Your task to perform on an android device: install app "Clock" Image 0: 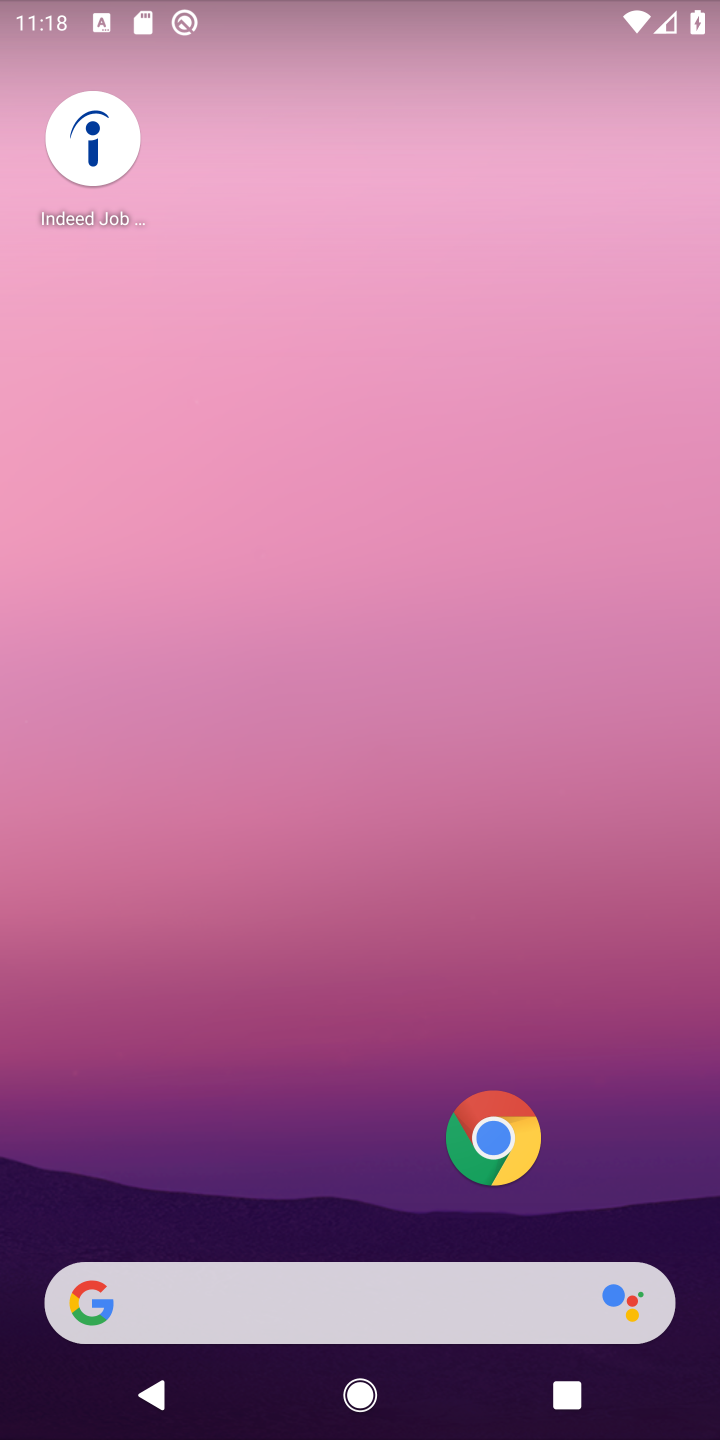
Step 0: drag from (331, 1175) to (427, 371)
Your task to perform on an android device: install app "Clock" Image 1: 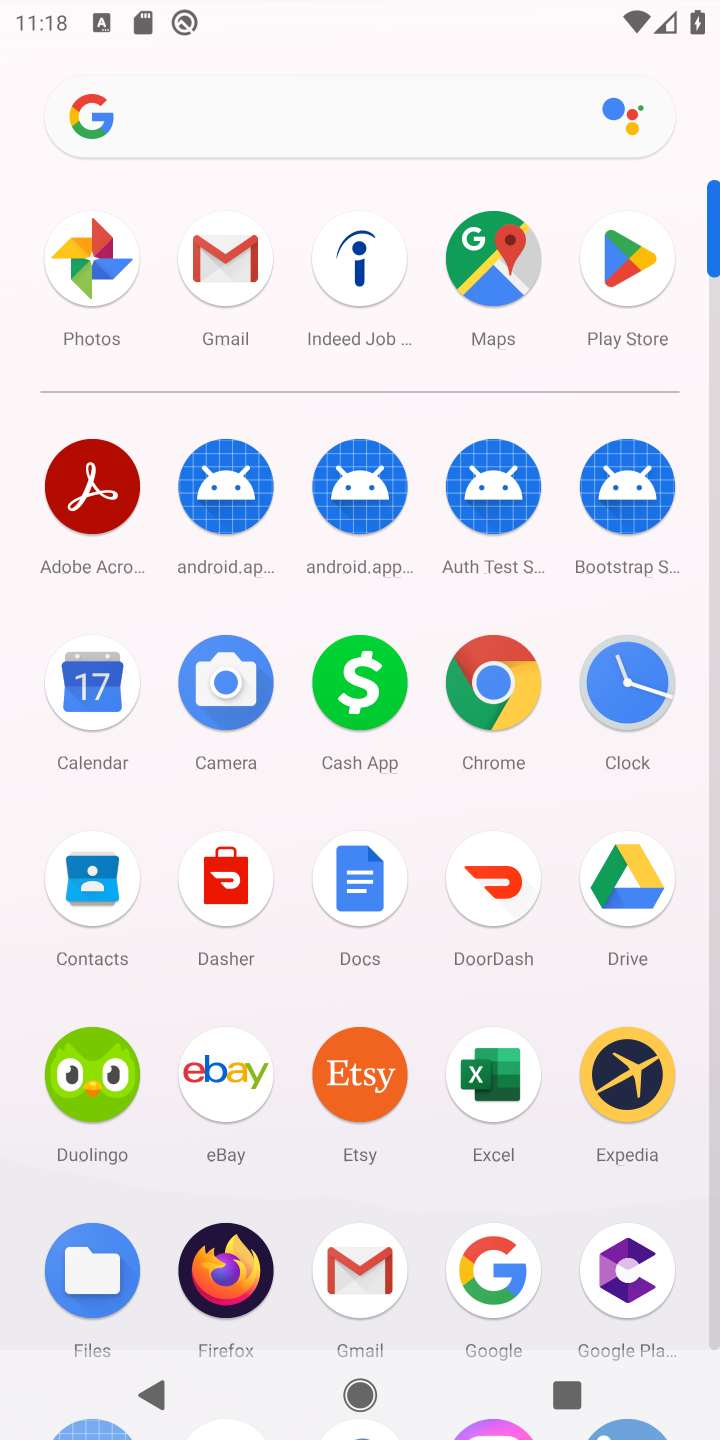
Step 1: click (637, 249)
Your task to perform on an android device: install app "Clock" Image 2: 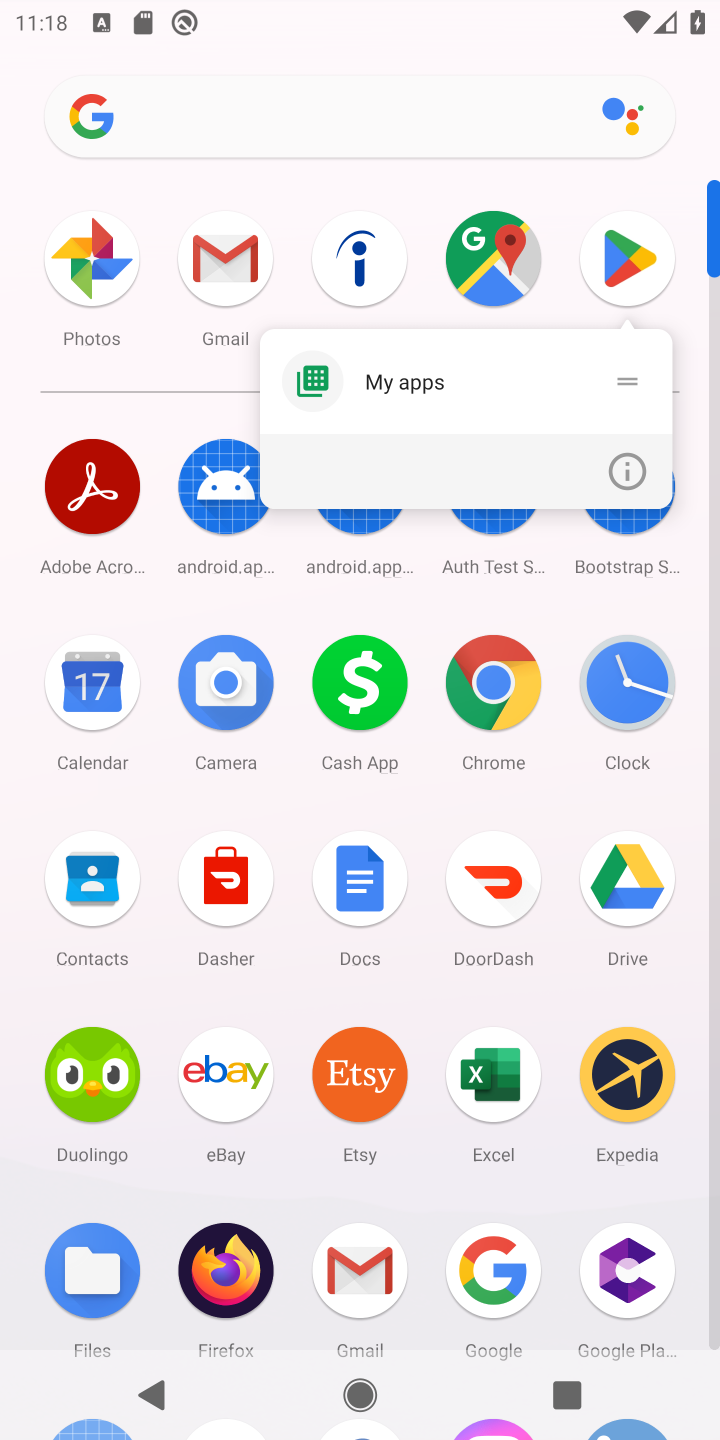
Step 2: click (633, 255)
Your task to perform on an android device: install app "Clock" Image 3: 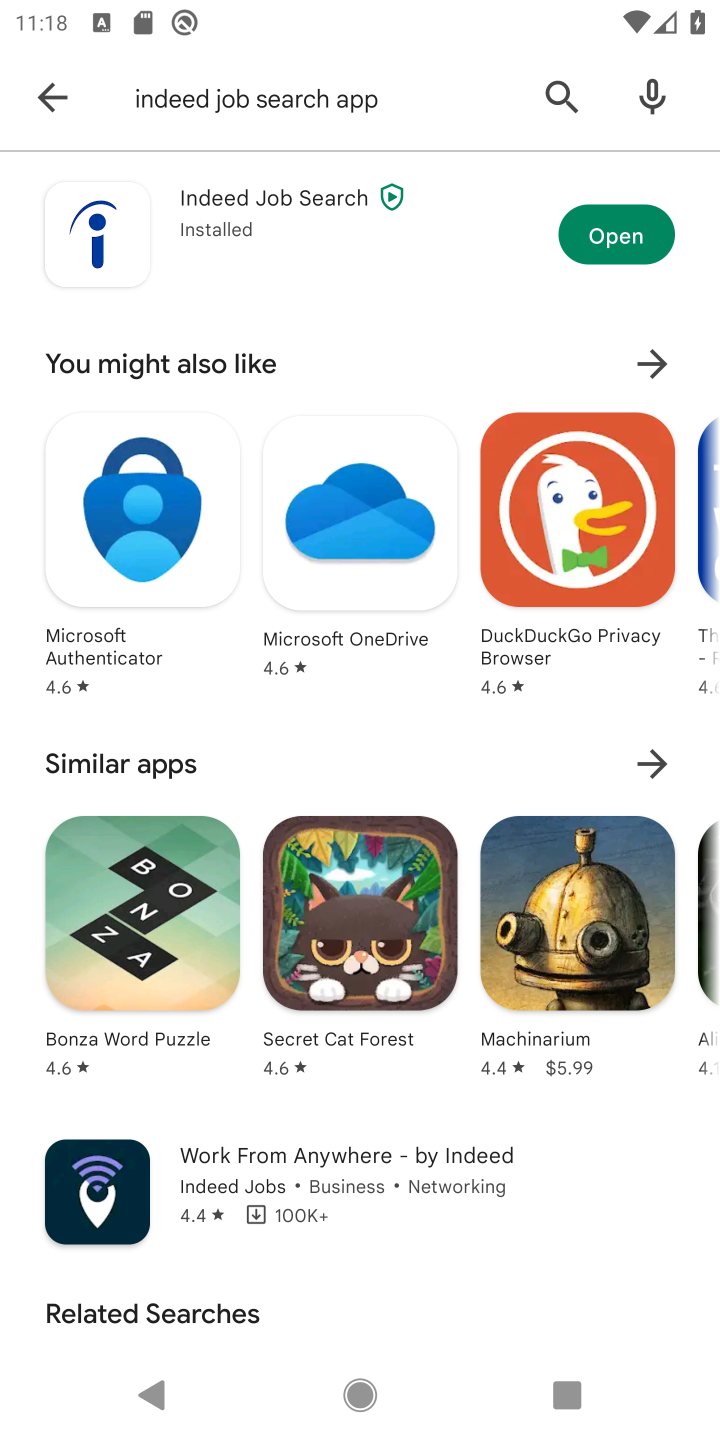
Step 3: click (40, 95)
Your task to perform on an android device: install app "Clock" Image 4: 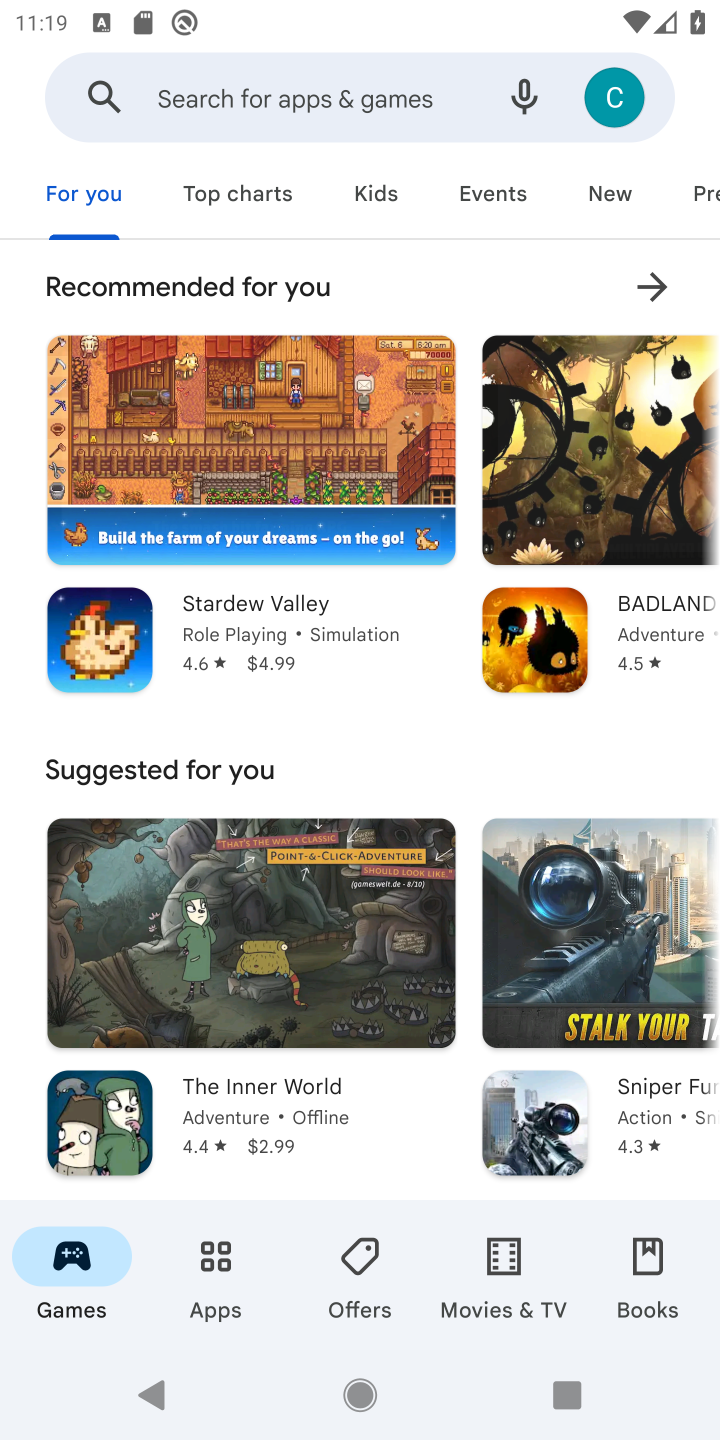
Step 4: click (322, 75)
Your task to perform on an android device: install app "Clock" Image 5: 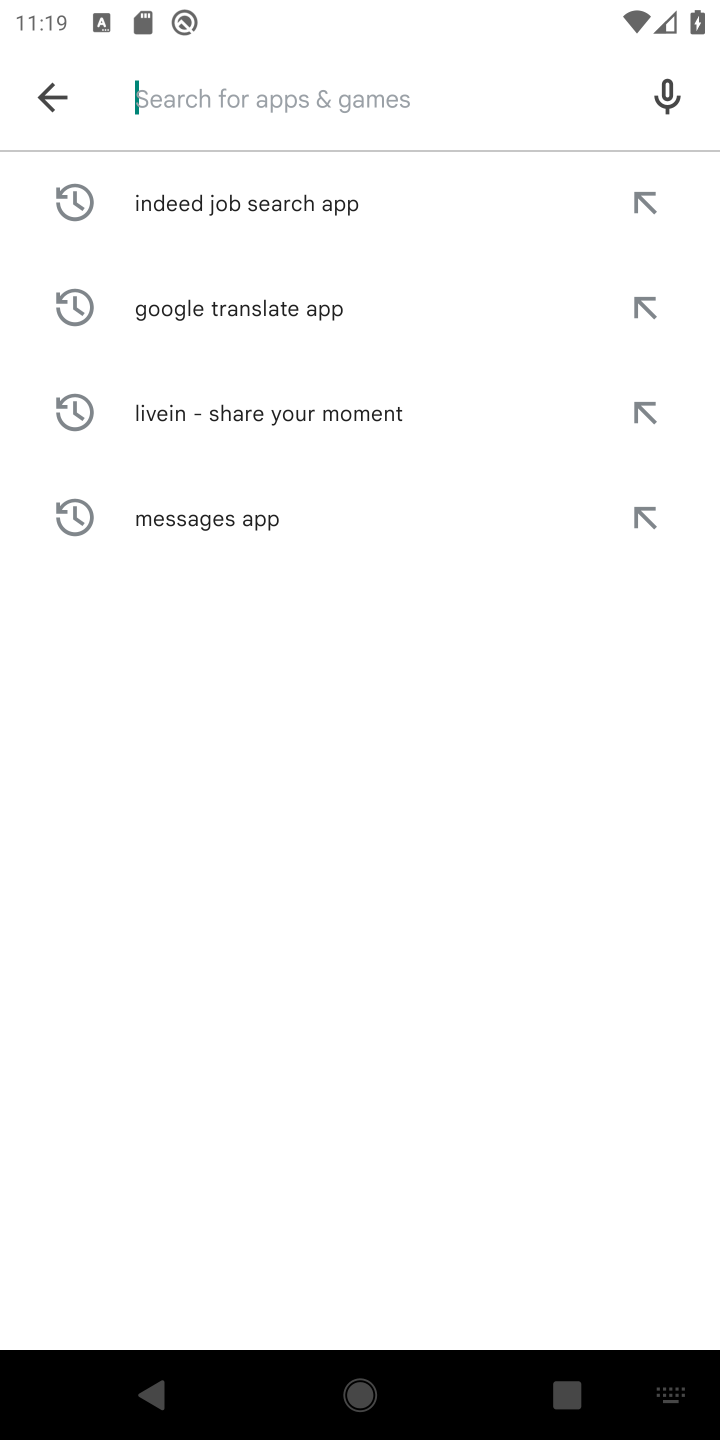
Step 5: type "Clock "
Your task to perform on an android device: install app "Clock" Image 6: 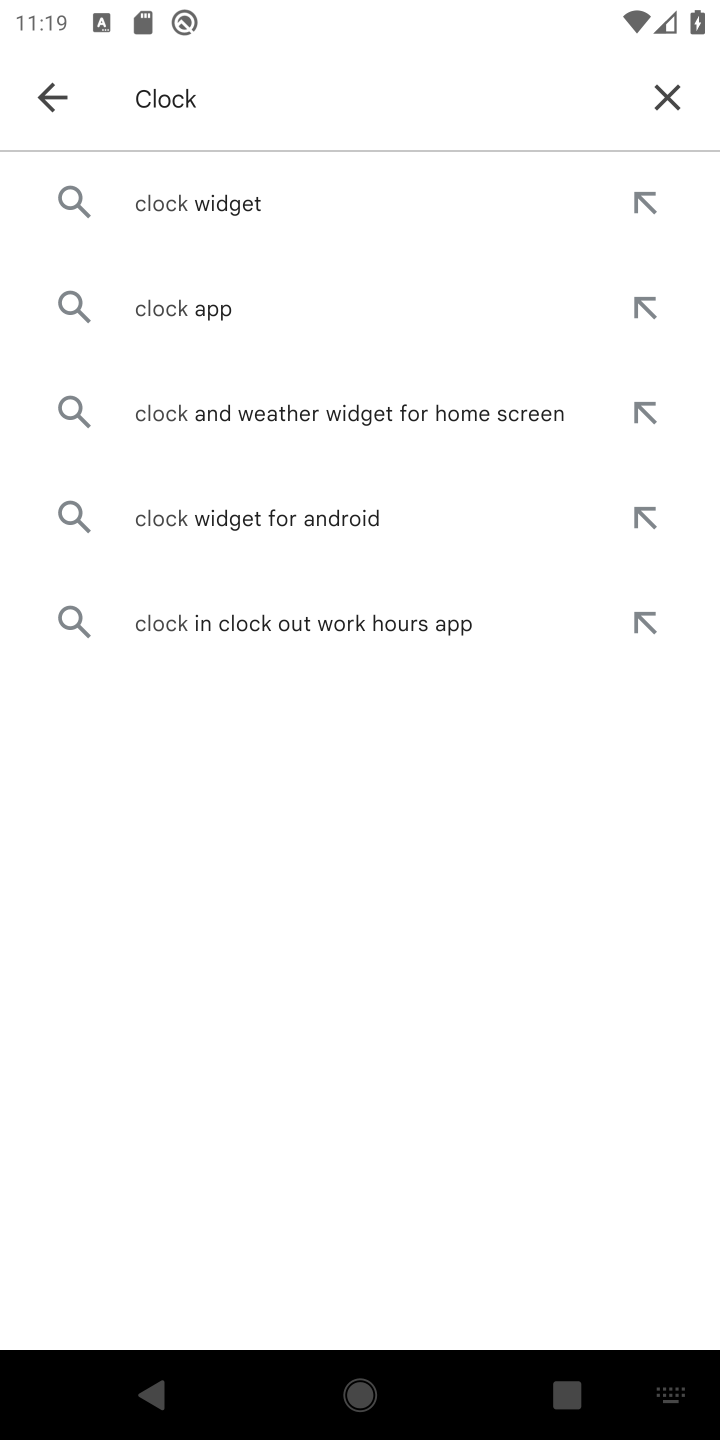
Step 6: click (200, 285)
Your task to perform on an android device: install app "Clock" Image 7: 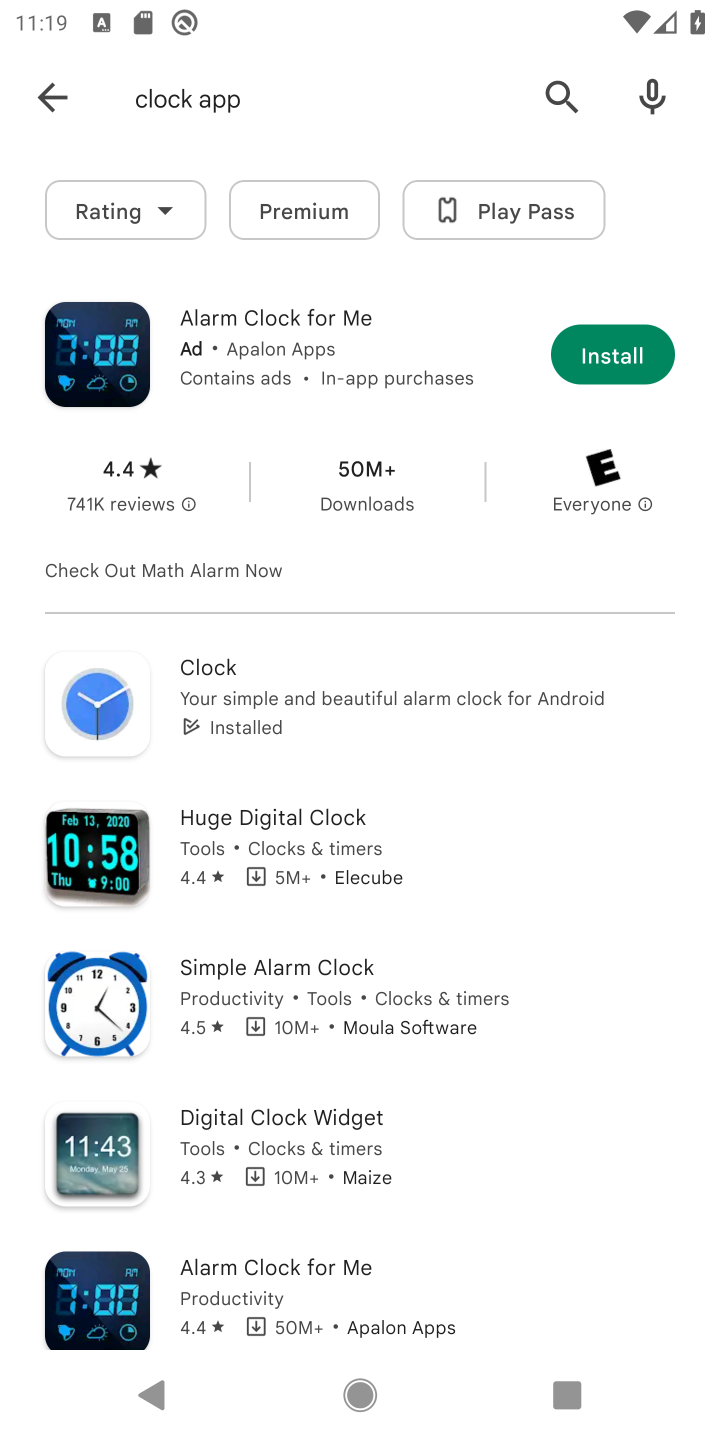
Step 7: click (596, 350)
Your task to perform on an android device: install app "Clock" Image 8: 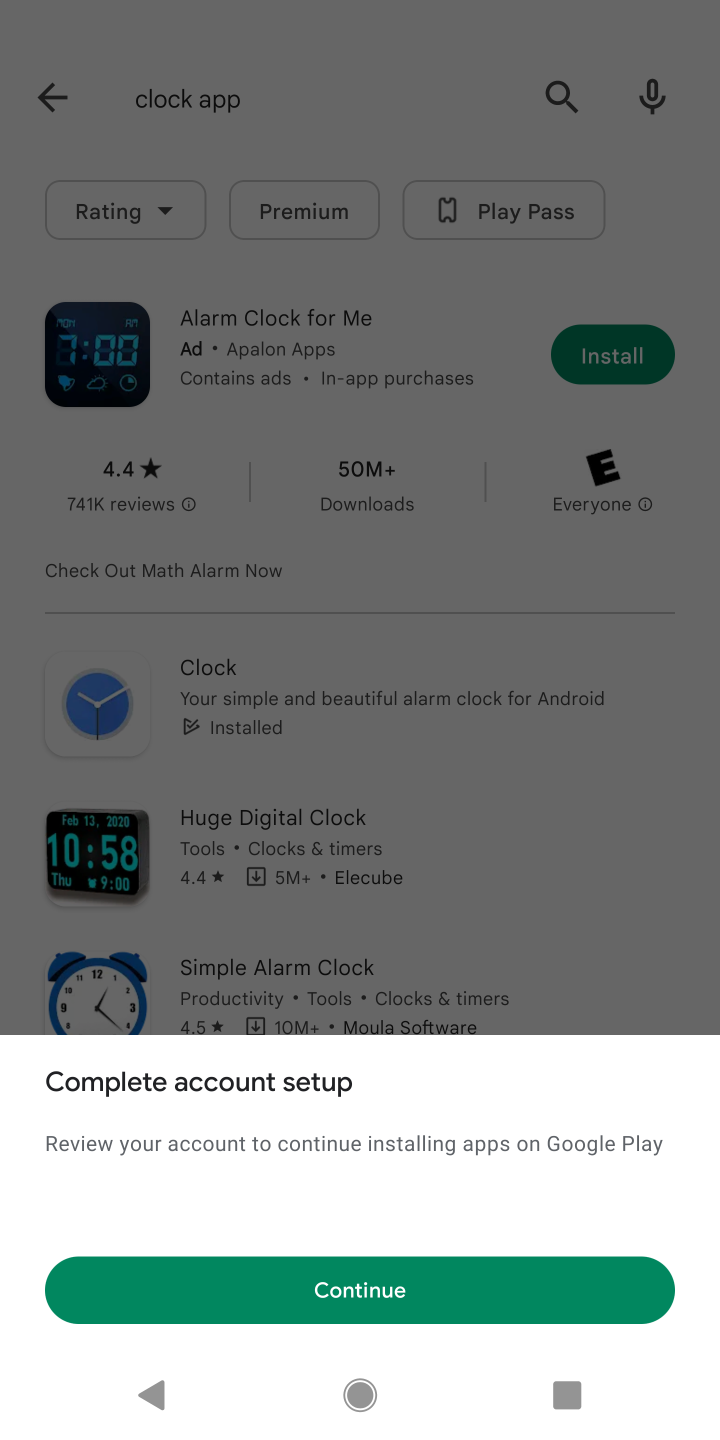
Step 8: task complete